Your task to perform on an android device: empty trash in the gmail app Image 0: 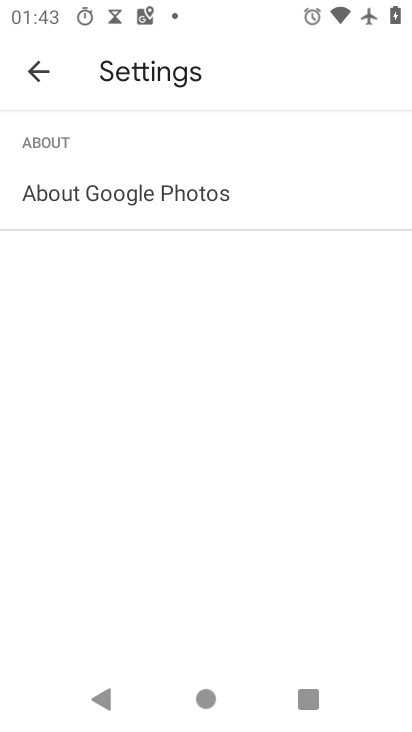
Step 0: press home button
Your task to perform on an android device: empty trash in the gmail app Image 1: 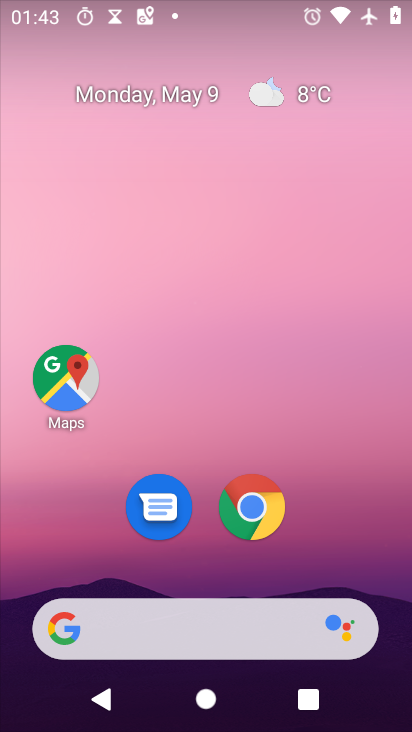
Step 1: drag from (227, 716) to (212, 204)
Your task to perform on an android device: empty trash in the gmail app Image 2: 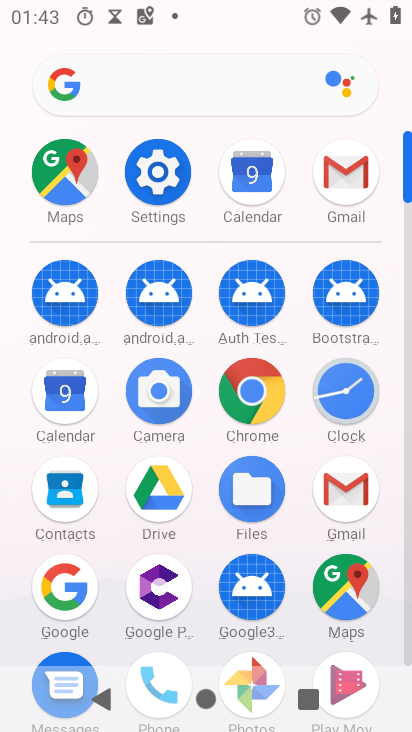
Step 2: click (345, 492)
Your task to perform on an android device: empty trash in the gmail app Image 3: 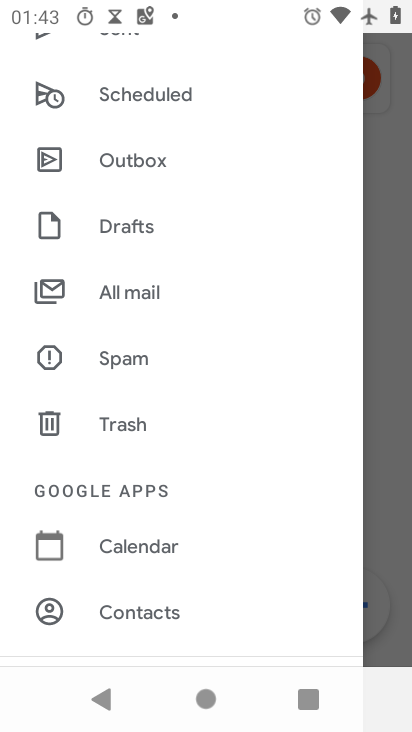
Step 3: click (125, 419)
Your task to perform on an android device: empty trash in the gmail app Image 4: 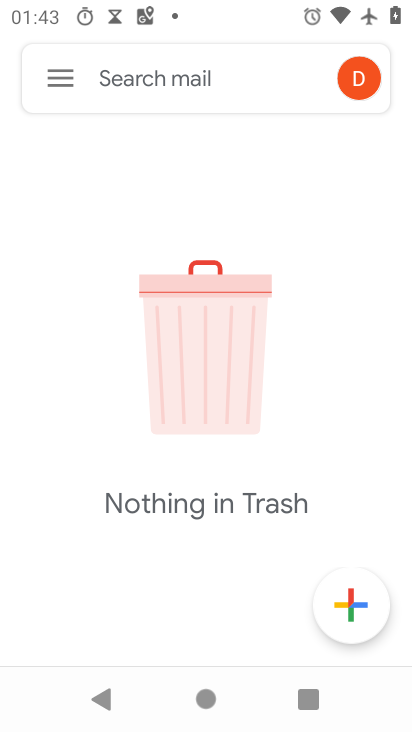
Step 4: task complete